Your task to perform on an android device: move an email to a new category in the gmail app Image 0: 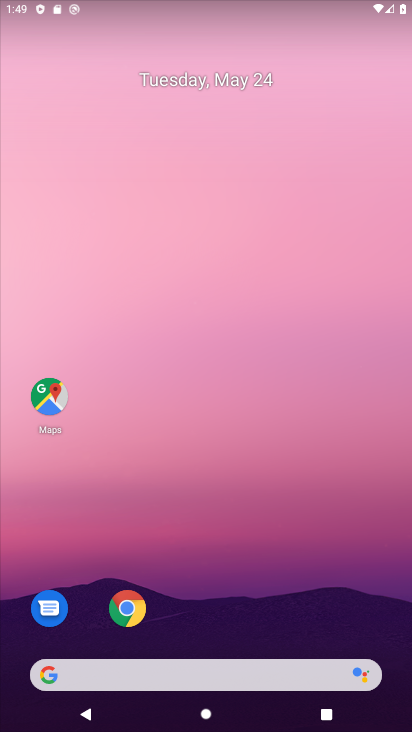
Step 0: drag from (257, 594) to (207, 7)
Your task to perform on an android device: move an email to a new category in the gmail app Image 1: 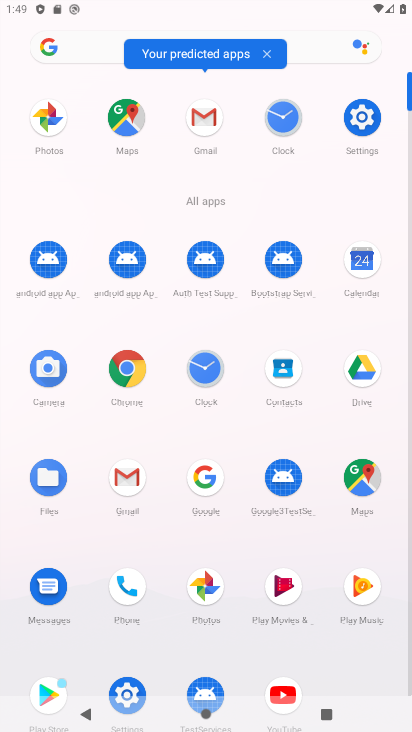
Step 1: click (112, 477)
Your task to perform on an android device: move an email to a new category in the gmail app Image 2: 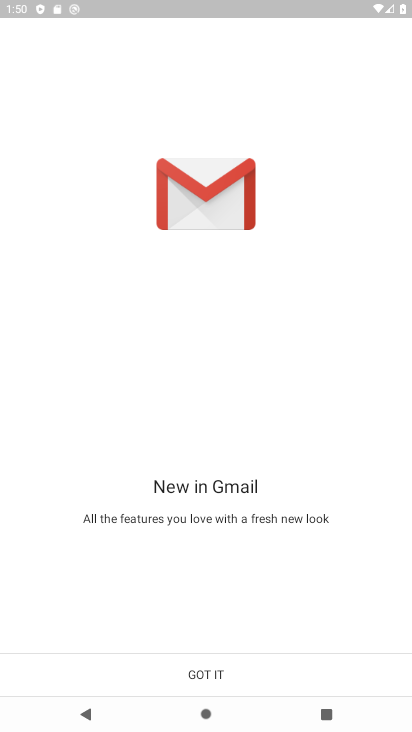
Step 2: click (211, 670)
Your task to perform on an android device: move an email to a new category in the gmail app Image 3: 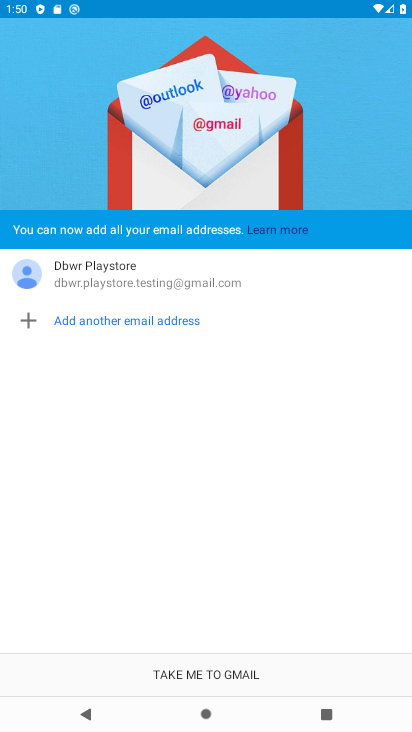
Step 3: click (199, 675)
Your task to perform on an android device: move an email to a new category in the gmail app Image 4: 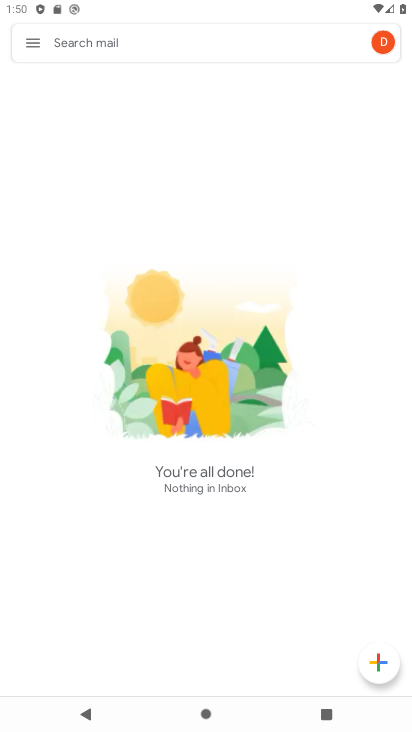
Step 4: click (38, 42)
Your task to perform on an android device: move an email to a new category in the gmail app Image 5: 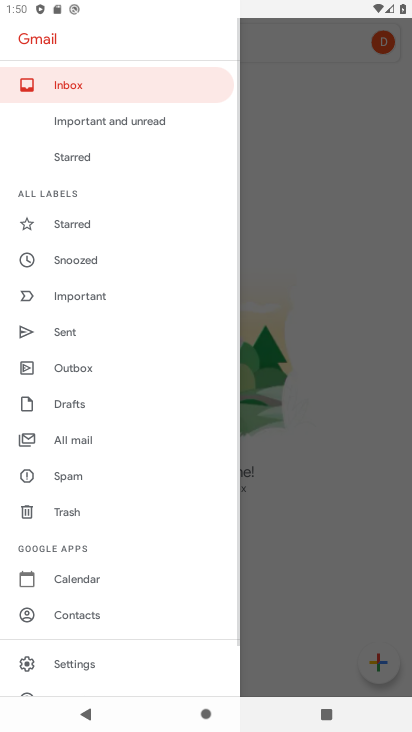
Step 5: click (64, 438)
Your task to perform on an android device: move an email to a new category in the gmail app Image 6: 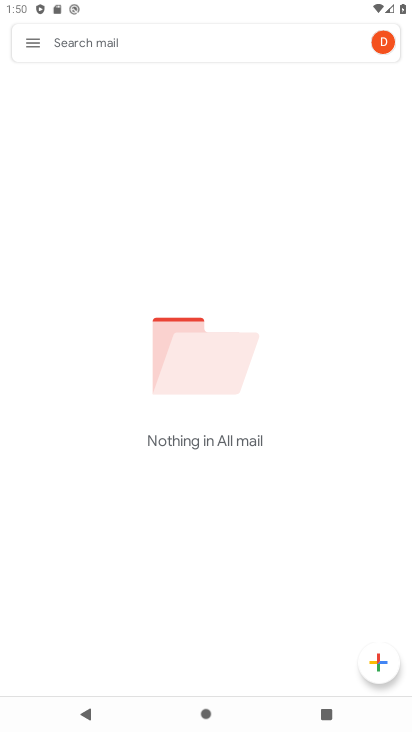
Step 6: task complete